Your task to perform on an android device: Go to notification settings Image 0: 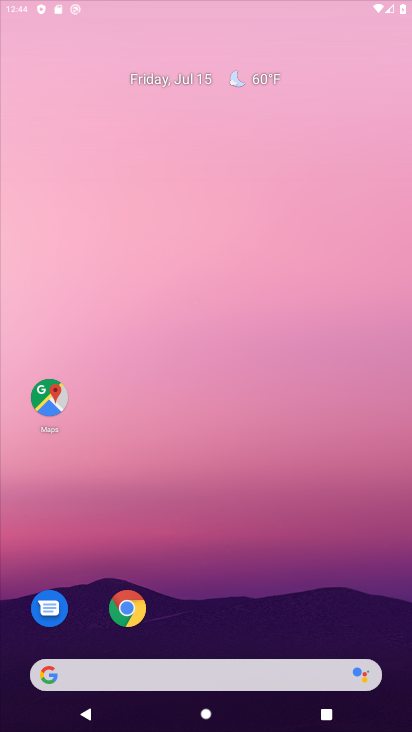
Step 0: press home button
Your task to perform on an android device: Go to notification settings Image 1: 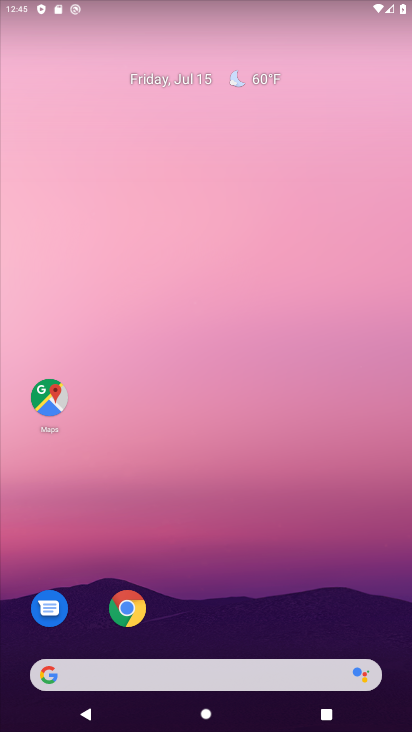
Step 1: click (288, 624)
Your task to perform on an android device: Go to notification settings Image 2: 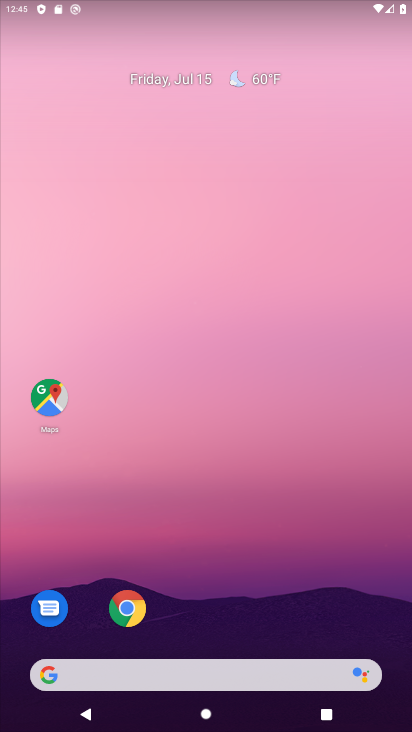
Step 2: drag from (363, 606) to (346, 52)
Your task to perform on an android device: Go to notification settings Image 3: 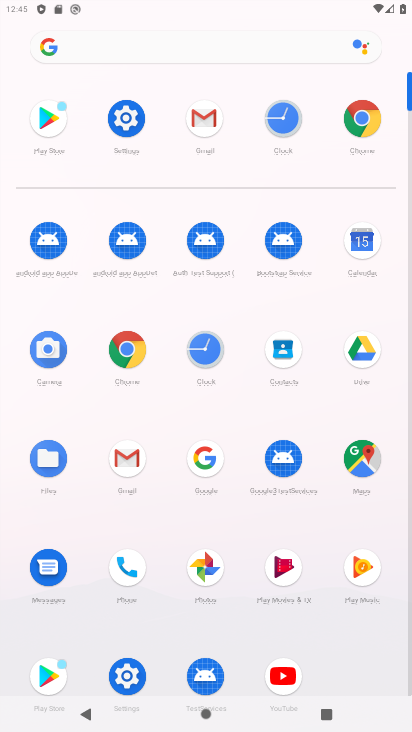
Step 3: click (124, 680)
Your task to perform on an android device: Go to notification settings Image 4: 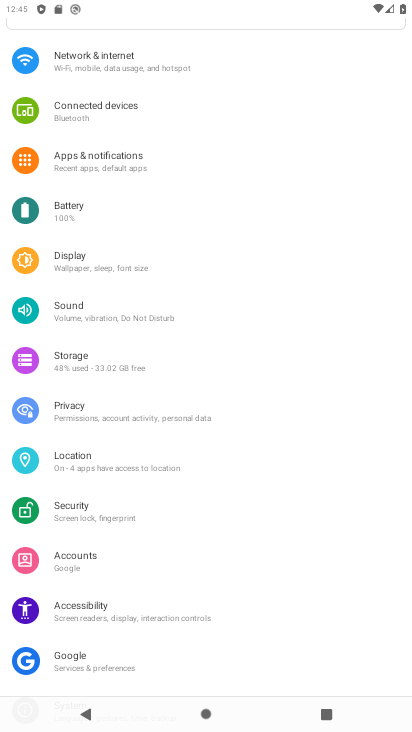
Step 4: click (90, 141)
Your task to perform on an android device: Go to notification settings Image 5: 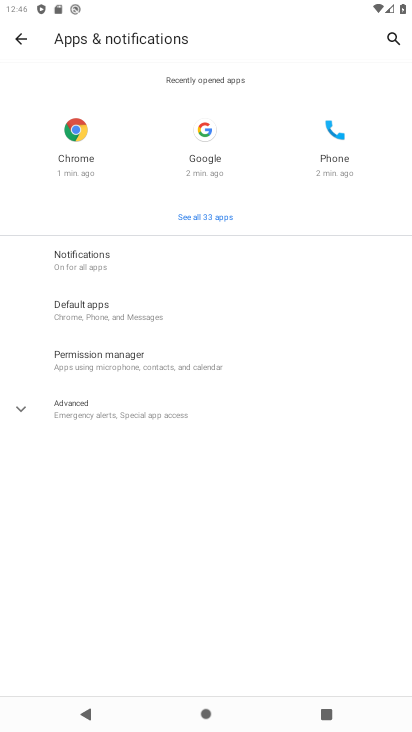
Step 5: click (73, 273)
Your task to perform on an android device: Go to notification settings Image 6: 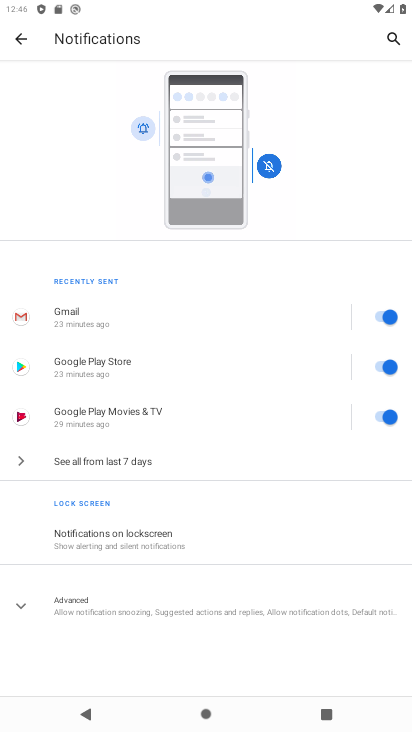
Step 6: task complete